Your task to perform on an android device: delete the emails in spam in the gmail app Image 0: 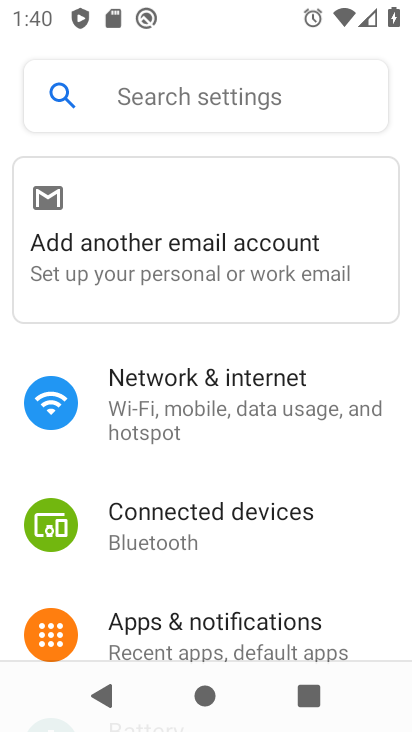
Step 0: press home button
Your task to perform on an android device: delete the emails in spam in the gmail app Image 1: 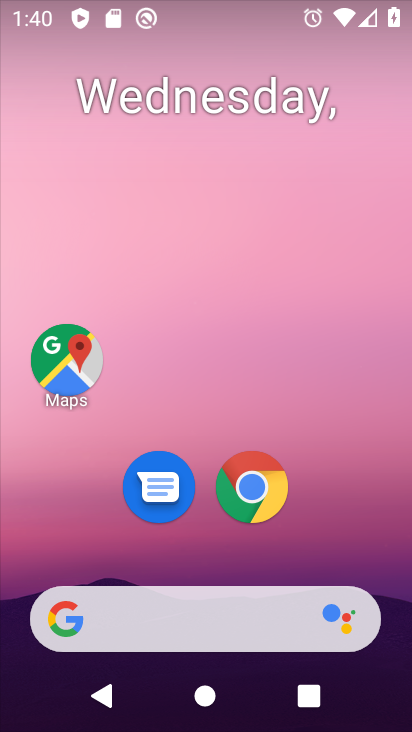
Step 1: drag from (390, 621) to (247, 62)
Your task to perform on an android device: delete the emails in spam in the gmail app Image 2: 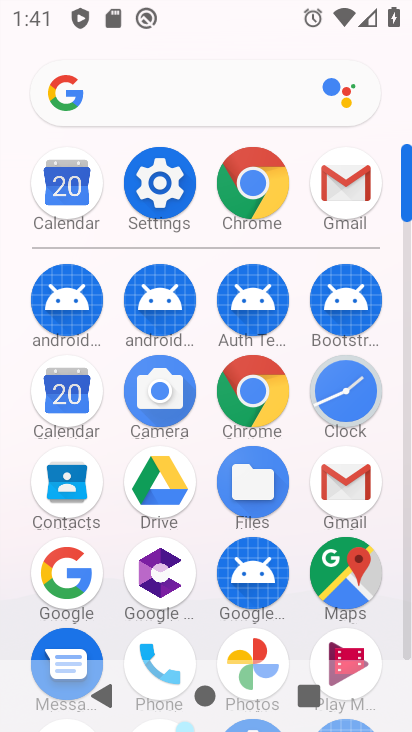
Step 2: click (330, 494)
Your task to perform on an android device: delete the emails in spam in the gmail app Image 3: 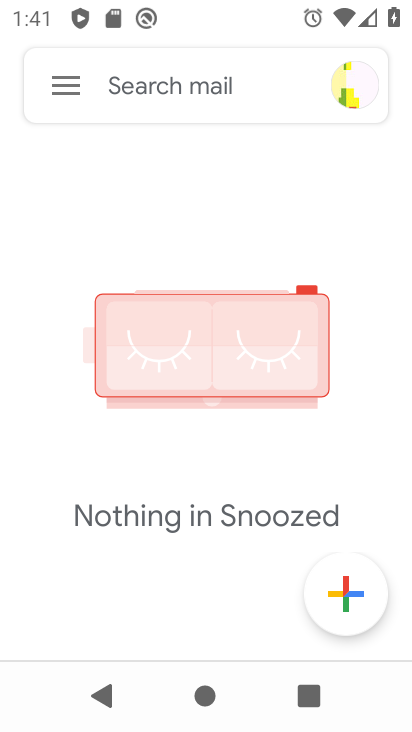
Step 3: task complete